Your task to perform on an android device: all mails in gmail Image 0: 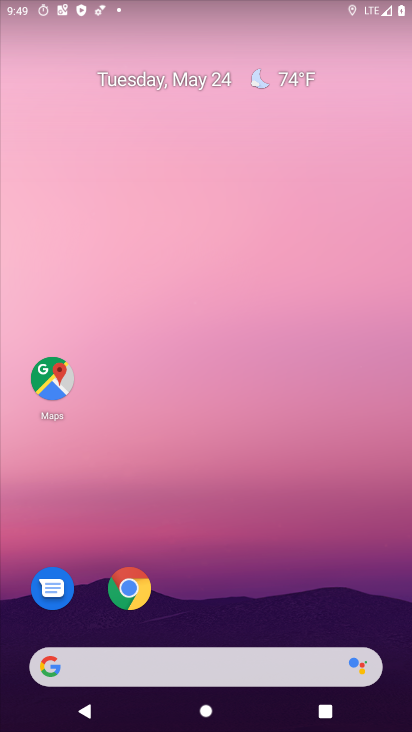
Step 0: drag from (205, 477) to (173, 10)
Your task to perform on an android device: all mails in gmail Image 1: 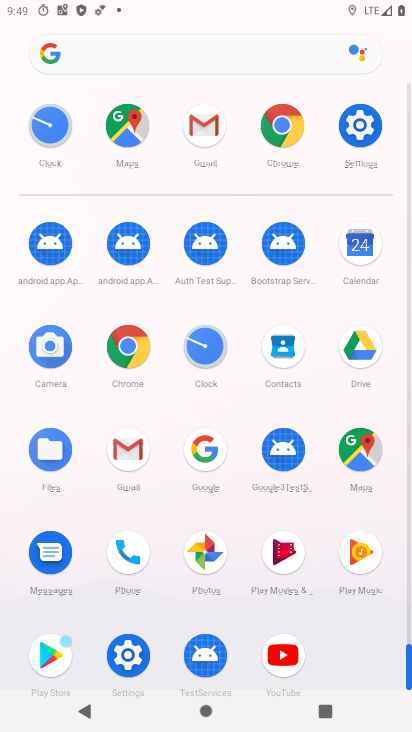
Step 1: drag from (10, 546) to (16, 209)
Your task to perform on an android device: all mails in gmail Image 2: 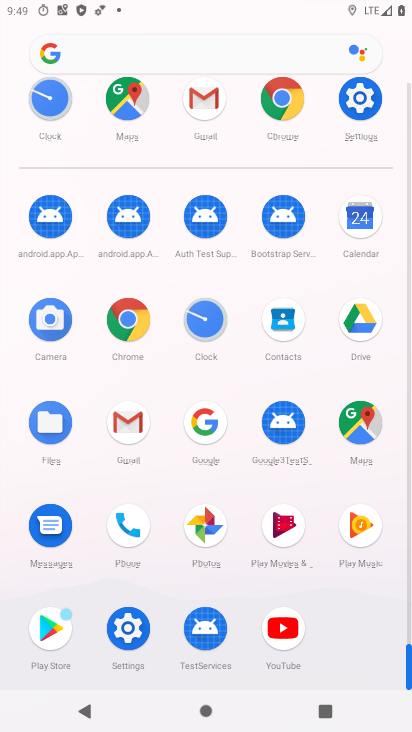
Step 2: click (123, 418)
Your task to perform on an android device: all mails in gmail Image 3: 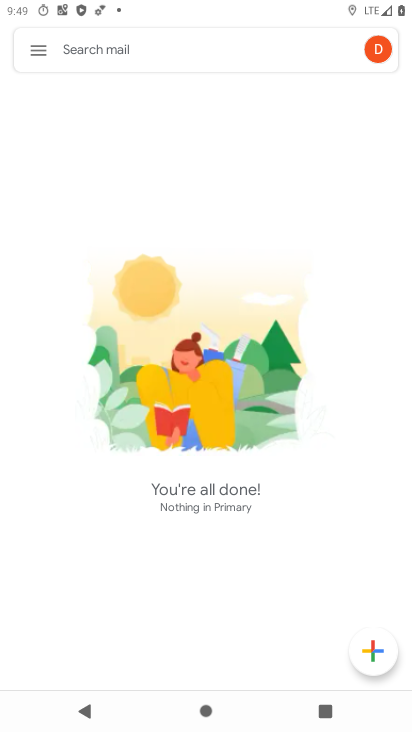
Step 3: click (39, 52)
Your task to perform on an android device: all mails in gmail Image 4: 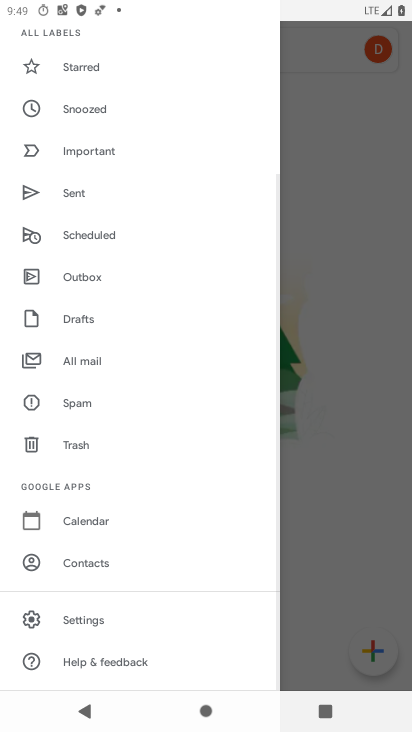
Step 4: click (84, 353)
Your task to perform on an android device: all mails in gmail Image 5: 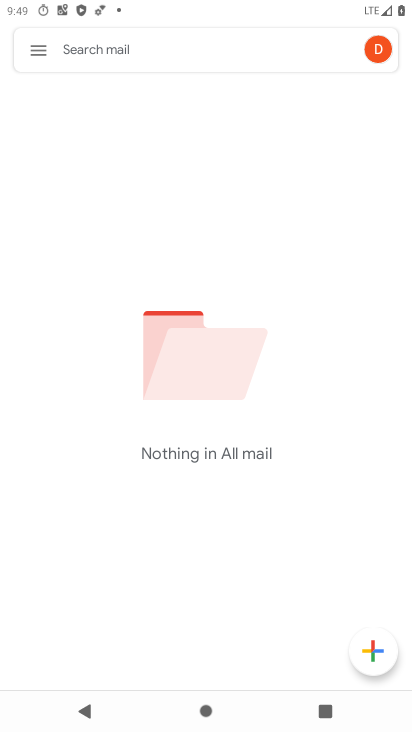
Step 5: task complete